Your task to perform on an android device: Do I have any events tomorrow? Image 0: 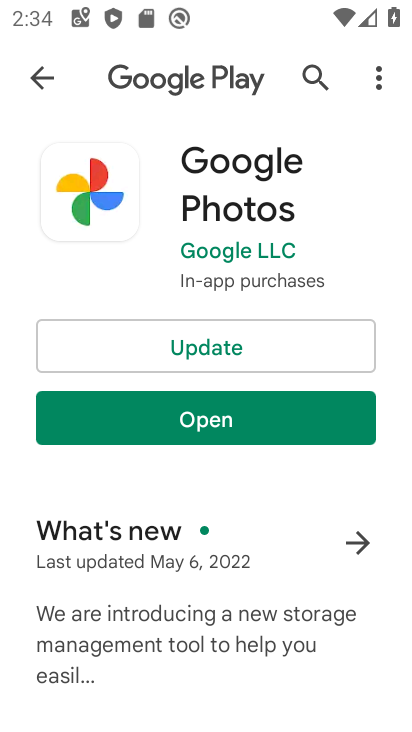
Step 0: press home button
Your task to perform on an android device: Do I have any events tomorrow? Image 1: 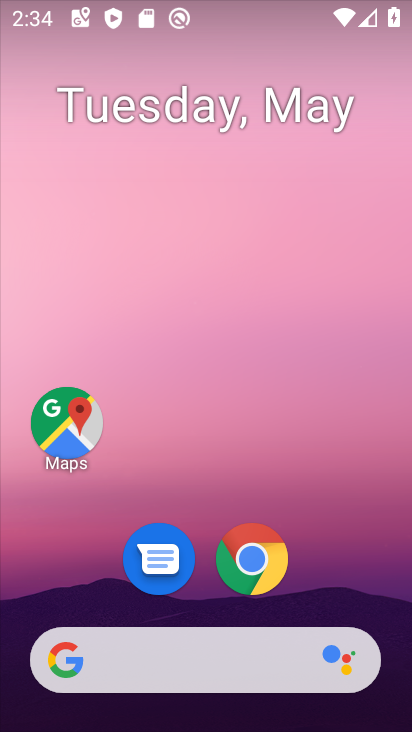
Step 1: drag from (198, 666) to (274, 125)
Your task to perform on an android device: Do I have any events tomorrow? Image 2: 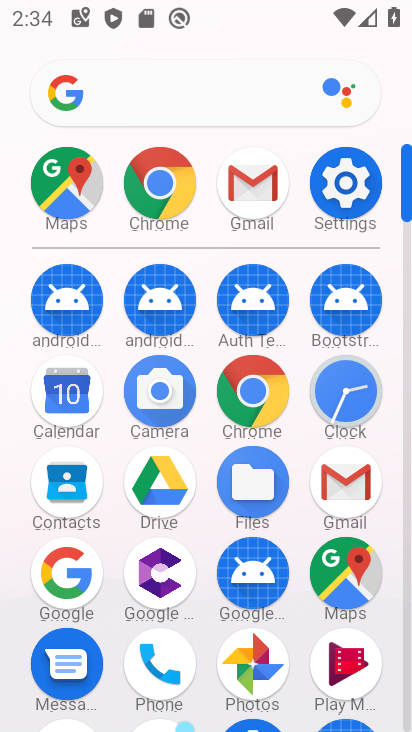
Step 2: click (76, 407)
Your task to perform on an android device: Do I have any events tomorrow? Image 3: 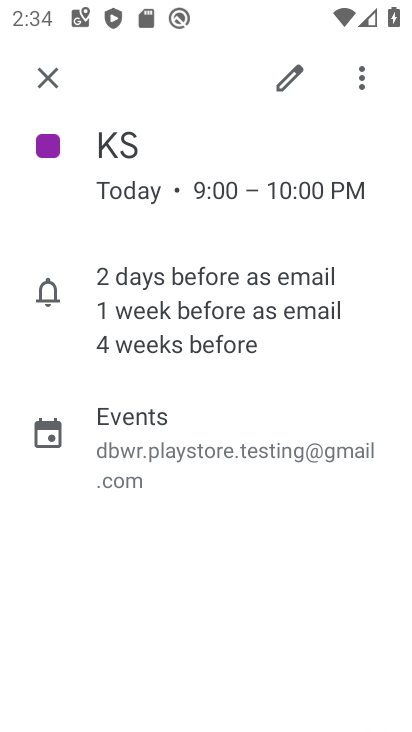
Step 3: click (53, 73)
Your task to perform on an android device: Do I have any events tomorrow? Image 4: 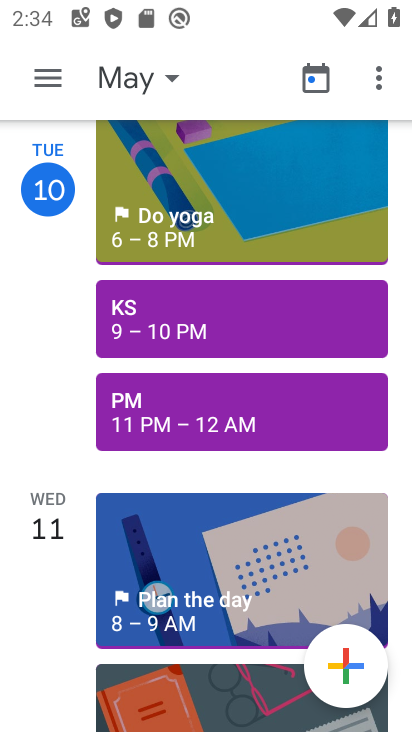
Step 4: click (125, 76)
Your task to perform on an android device: Do I have any events tomorrow? Image 5: 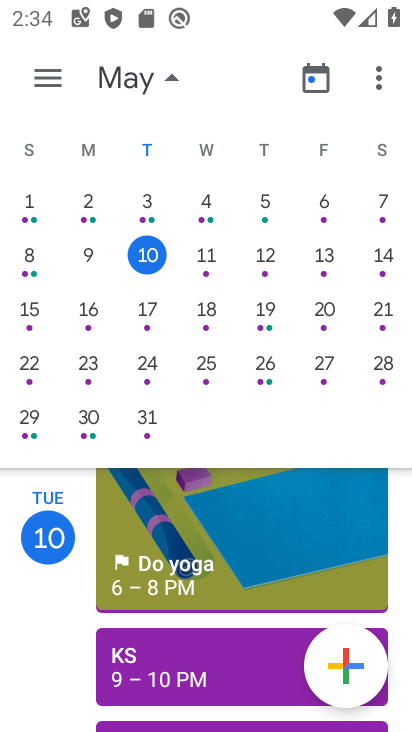
Step 5: click (208, 260)
Your task to perform on an android device: Do I have any events tomorrow? Image 6: 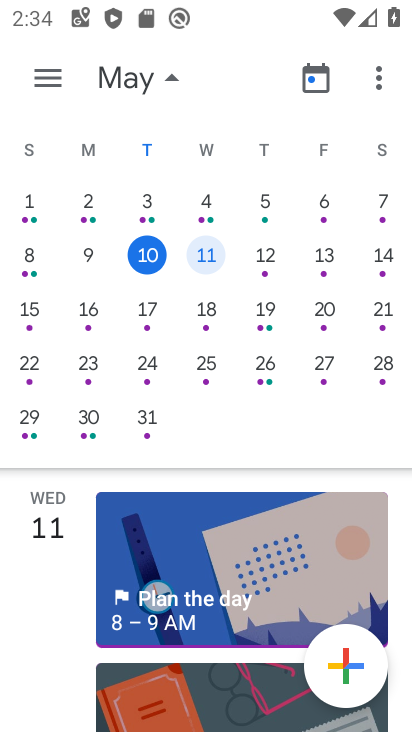
Step 6: click (50, 81)
Your task to perform on an android device: Do I have any events tomorrow? Image 7: 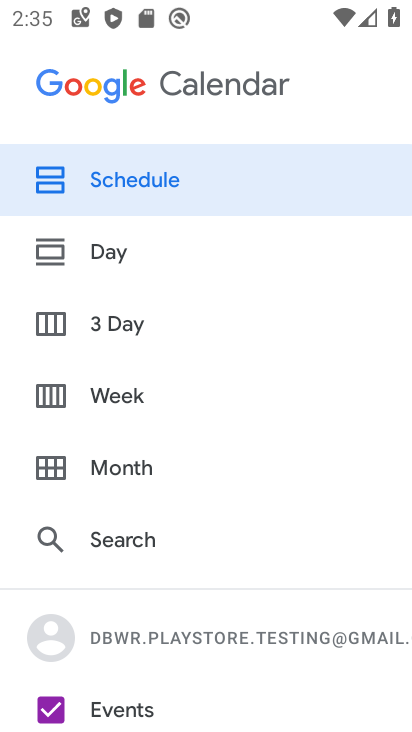
Step 7: click (109, 248)
Your task to perform on an android device: Do I have any events tomorrow? Image 8: 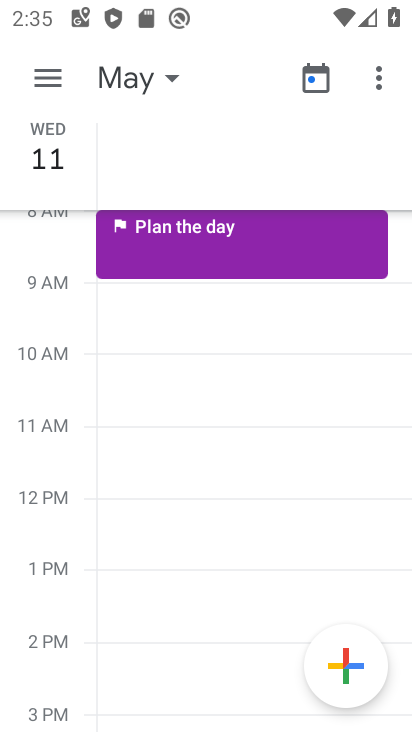
Step 8: click (44, 74)
Your task to perform on an android device: Do I have any events tomorrow? Image 9: 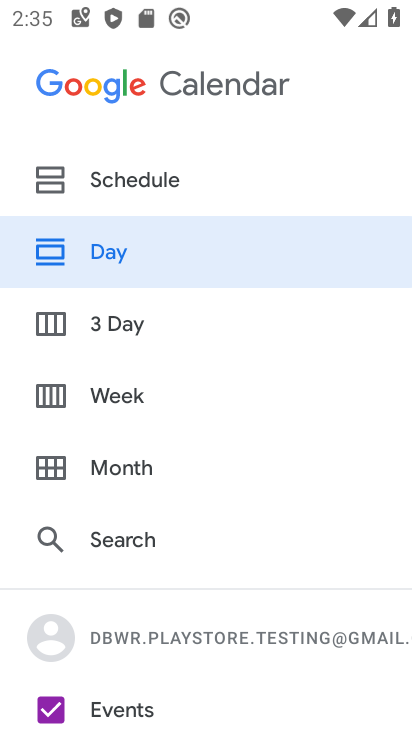
Step 9: click (130, 178)
Your task to perform on an android device: Do I have any events tomorrow? Image 10: 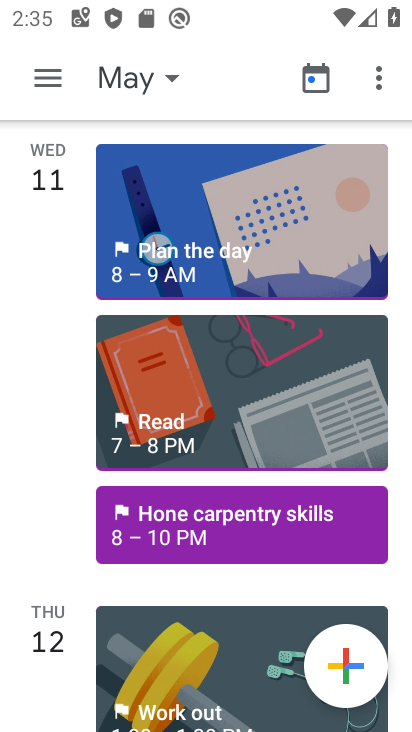
Step 10: click (216, 537)
Your task to perform on an android device: Do I have any events tomorrow? Image 11: 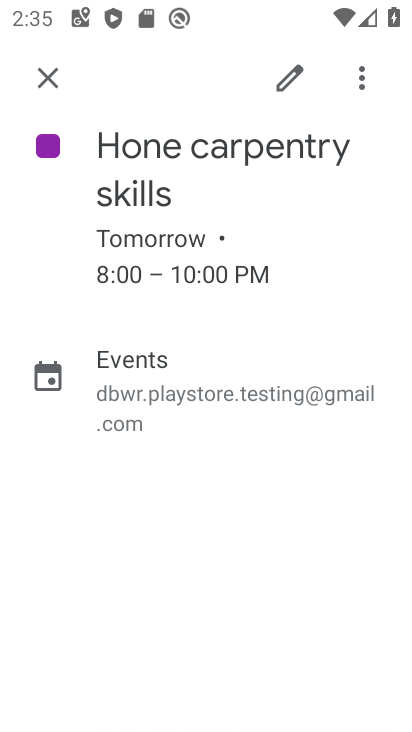
Step 11: task complete